Your task to perform on an android device: Open Youtube and go to the subscriptions tab Image 0: 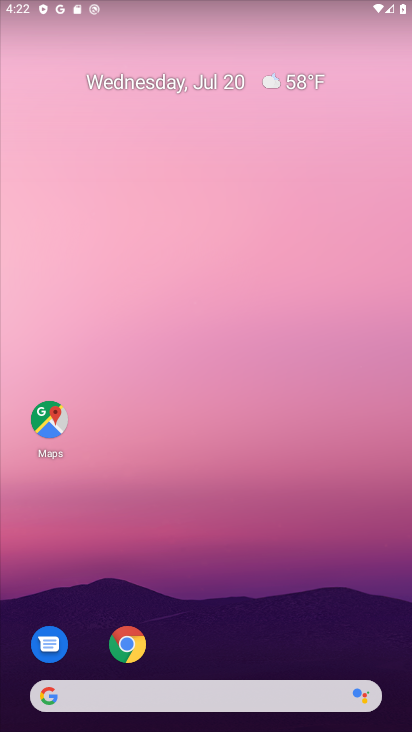
Step 0: press home button
Your task to perform on an android device: Open Youtube and go to the subscriptions tab Image 1: 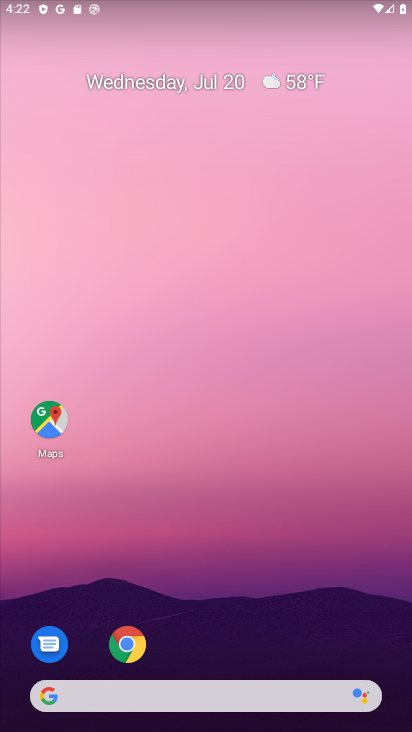
Step 1: drag from (240, 647) to (279, 31)
Your task to perform on an android device: Open Youtube and go to the subscriptions tab Image 2: 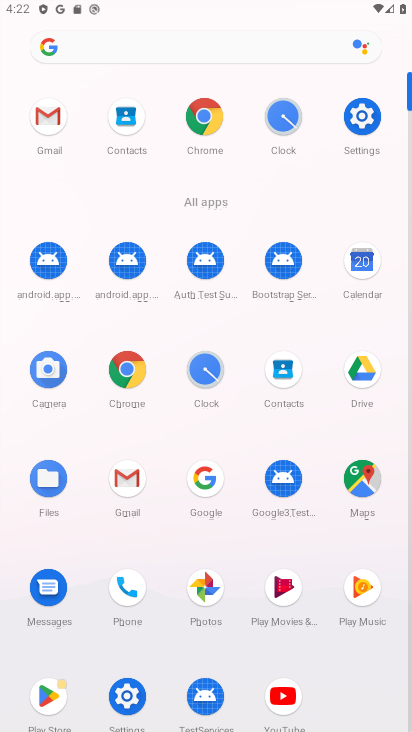
Step 2: click (292, 693)
Your task to perform on an android device: Open Youtube and go to the subscriptions tab Image 3: 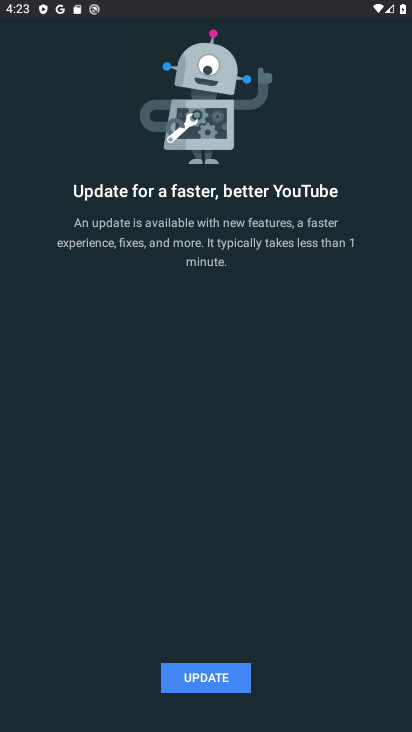
Step 3: click (234, 680)
Your task to perform on an android device: Open Youtube and go to the subscriptions tab Image 4: 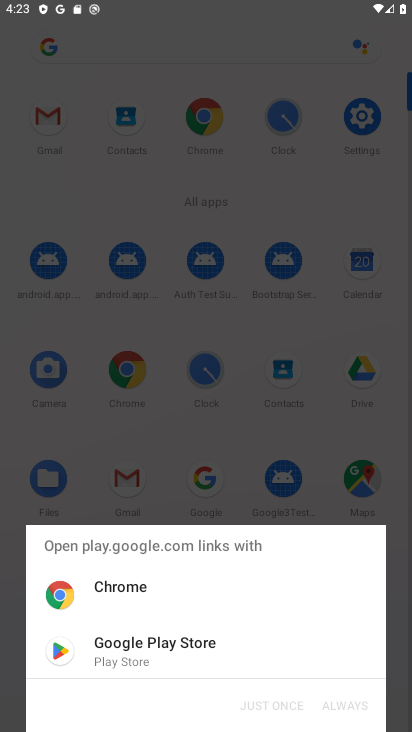
Step 4: click (146, 654)
Your task to perform on an android device: Open Youtube and go to the subscriptions tab Image 5: 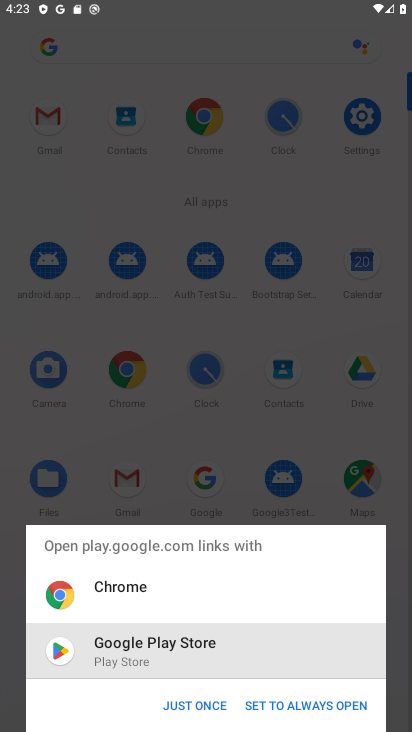
Step 5: click (196, 701)
Your task to perform on an android device: Open Youtube and go to the subscriptions tab Image 6: 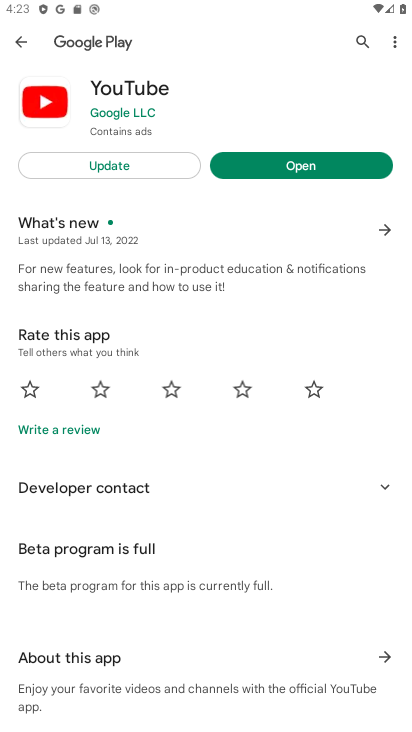
Step 6: click (138, 167)
Your task to perform on an android device: Open Youtube and go to the subscriptions tab Image 7: 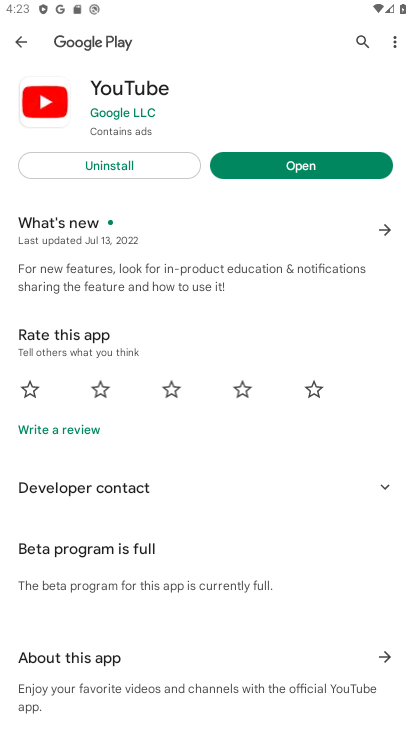
Step 7: click (249, 170)
Your task to perform on an android device: Open Youtube and go to the subscriptions tab Image 8: 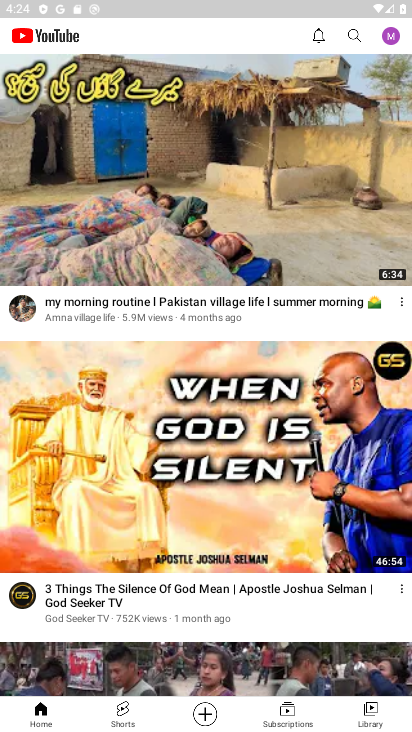
Step 8: click (289, 717)
Your task to perform on an android device: Open Youtube and go to the subscriptions tab Image 9: 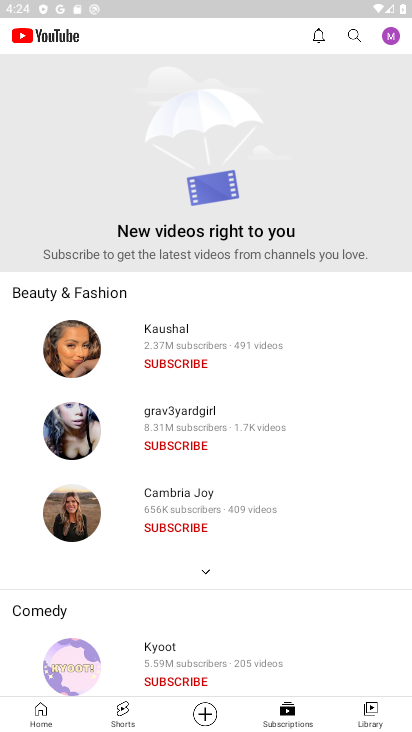
Step 9: task complete